Your task to perform on an android device: Go to Reddit.com Image 0: 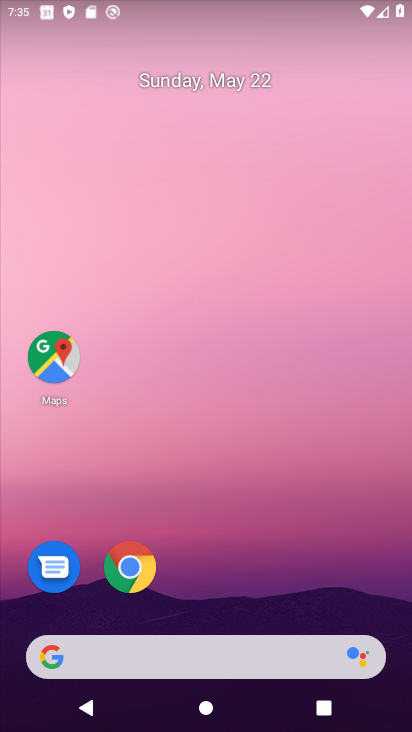
Step 0: click (131, 575)
Your task to perform on an android device: Go to Reddit.com Image 1: 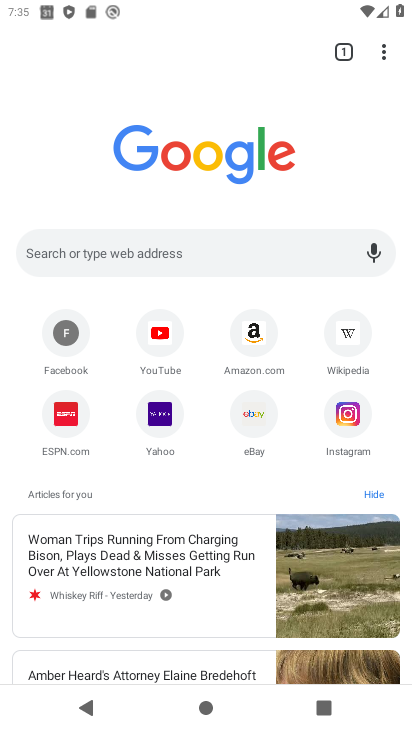
Step 1: click (126, 251)
Your task to perform on an android device: Go to Reddit.com Image 2: 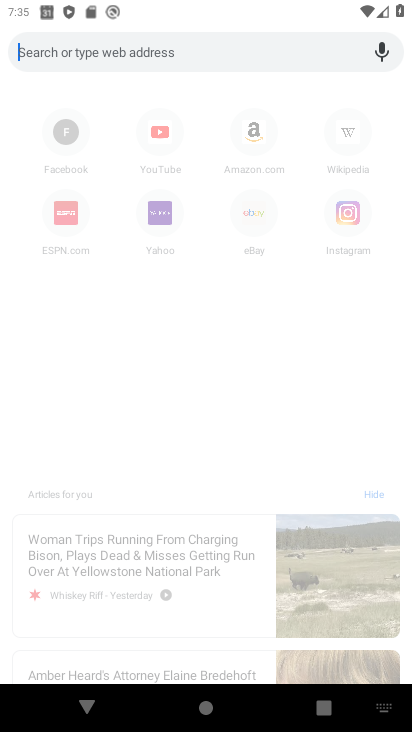
Step 2: type "reddit.com"
Your task to perform on an android device: Go to Reddit.com Image 3: 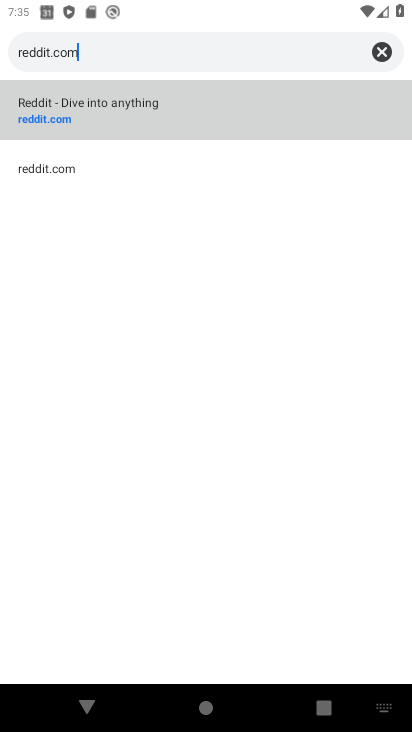
Step 3: click (79, 92)
Your task to perform on an android device: Go to Reddit.com Image 4: 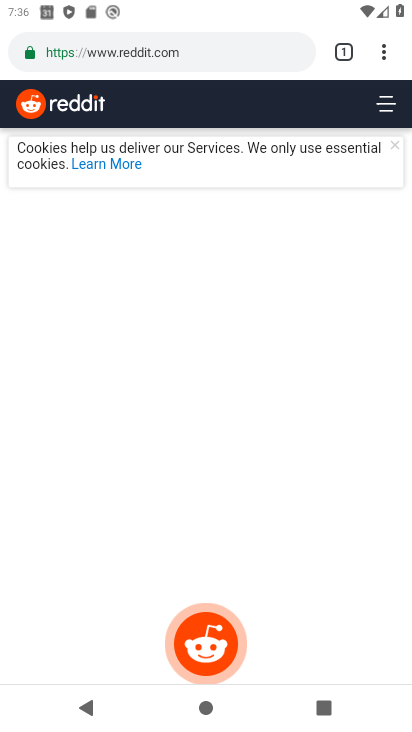
Step 4: task complete